Your task to perform on an android device: open app "Indeed Job Search" (install if not already installed) and enter user name: "quixotic@inbox.com" and password: "microphones" Image 0: 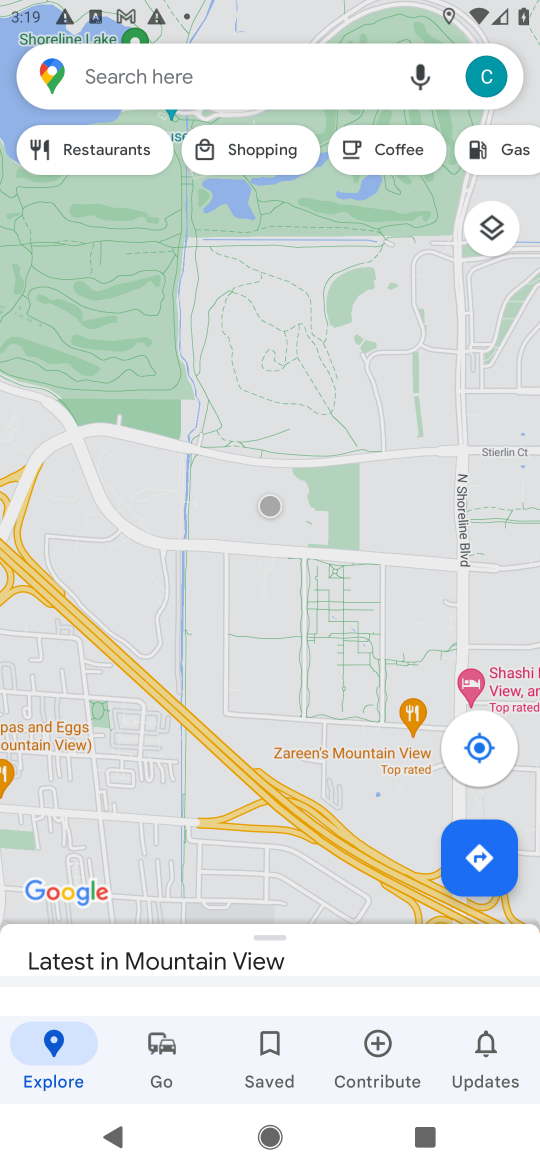
Step 0: press home button
Your task to perform on an android device: open app "Indeed Job Search" (install if not already installed) and enter user name: "quixotic@inbox.com" and password: "microphones" Image 1: 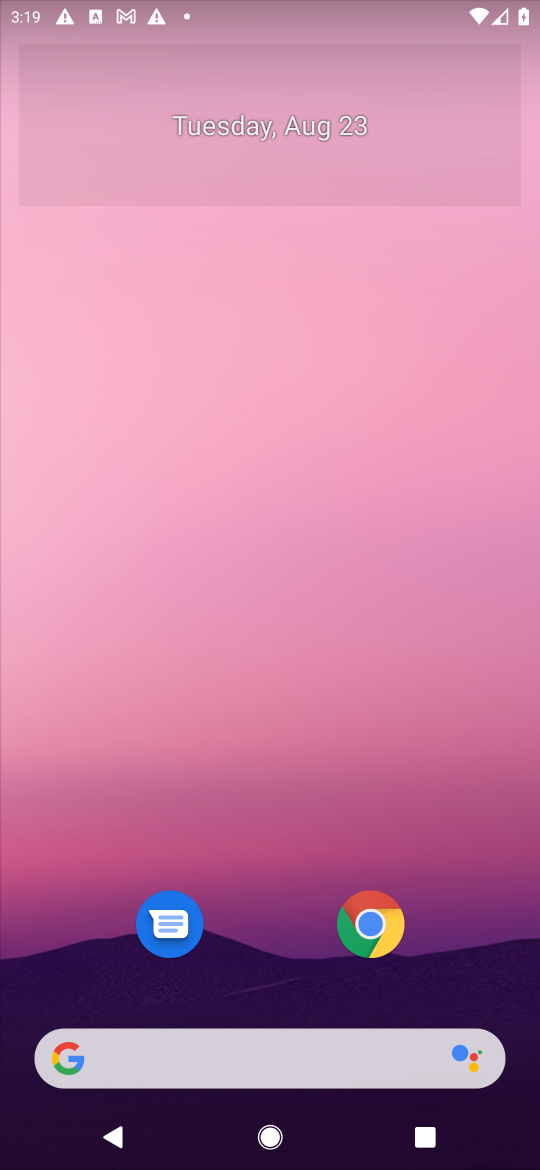
Step 1: drag from (458, 967) to (464, 58)
Your task to perform on an android device: open app "Indeed Job Search" (install if not already installed) and enter user name: "quixotic@inbox.com" and password: "microphones" Image 2: 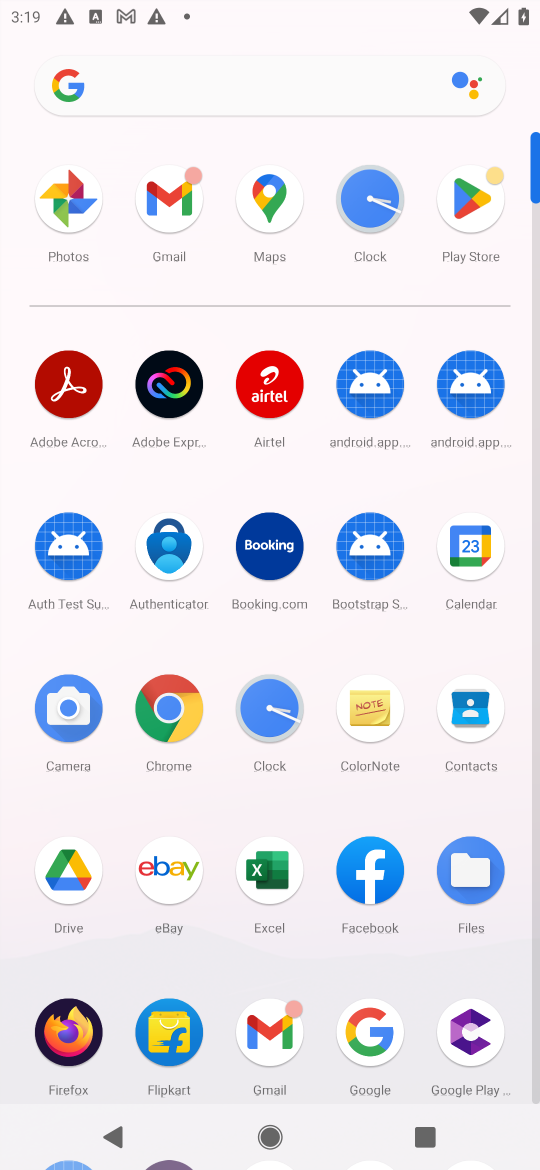
Step 2: click (475, 198)
Your task to perform on an android device: open app "Indeed Job Search" (install if not already installed) and enter user name: "quixotic@inbox.com" and password: "microphones" Image 3: 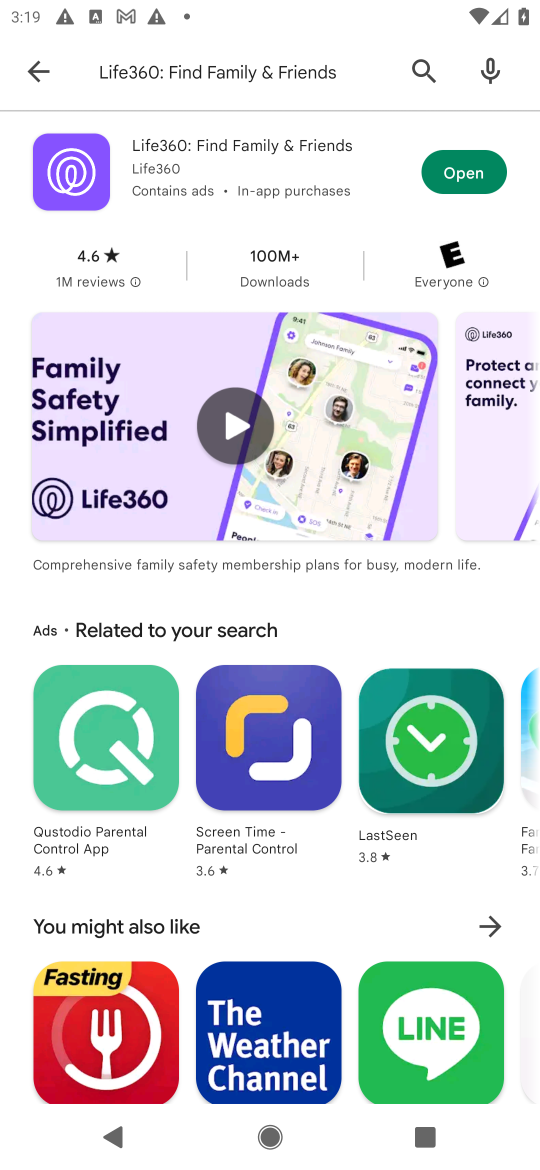
Step 3: press back button
Your task to perform on an android device: open app "Indeed Job Search" (install if not already installed) and enter user name: "quixotic@inbox.com" and password: "microphones" Image 4: 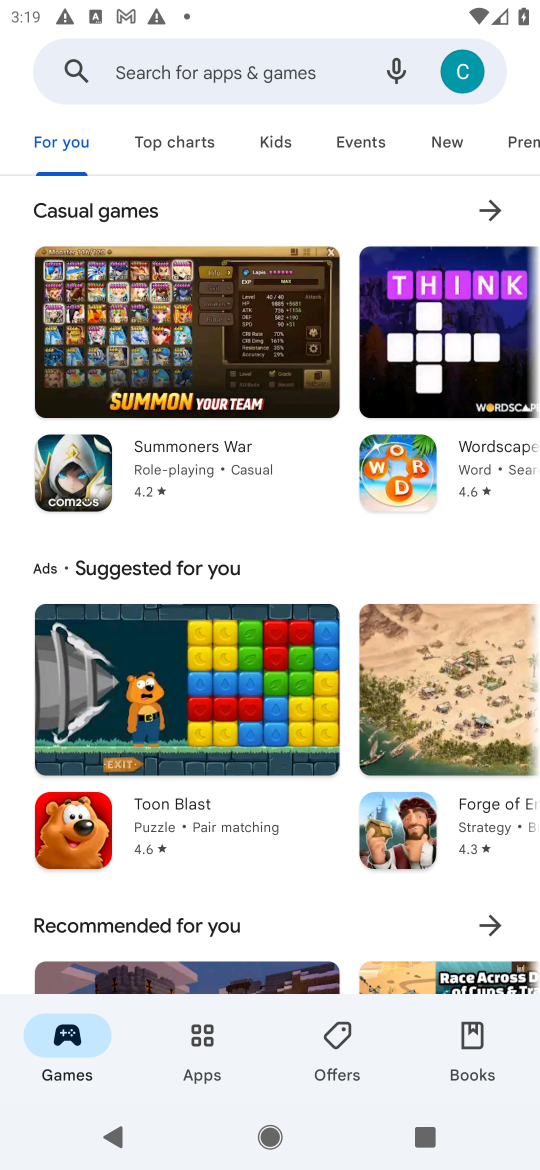
Step 4: click (242, 64)
Your task to perform on an android device: open app "Indeed Job Search" (install if not already installed) and enter user name: "quixotic@inbox.com" and password: "microphones" Image 5: 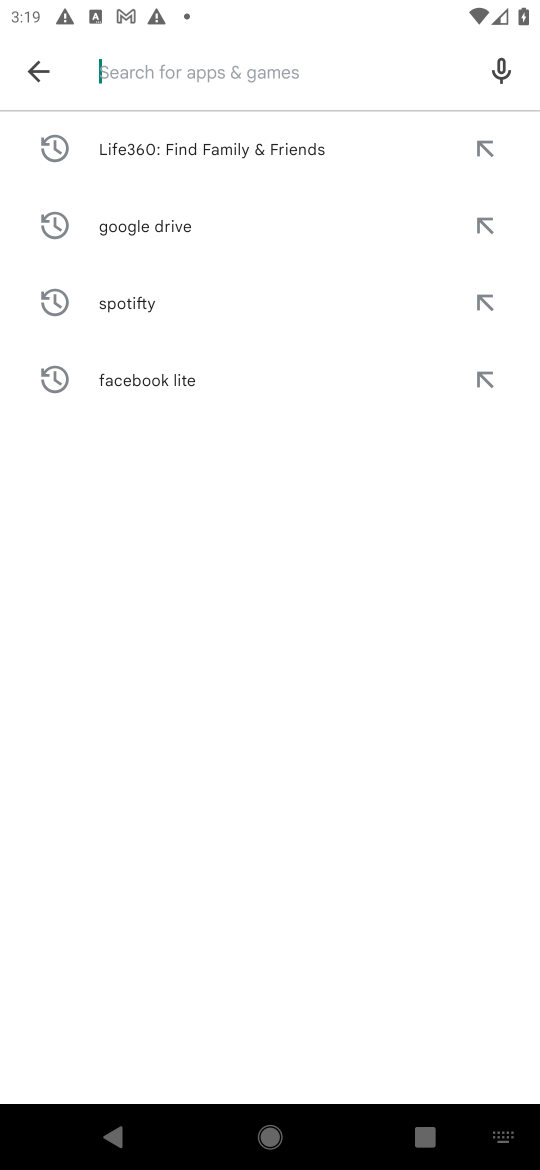
Step 5: type "Indeed Job Search"
Your task to perform on an android device: open app "Indeed Job Search" (install if not already installed) and enter user name: "quixotic@inbox.com" and password: "microphones" Image 6: 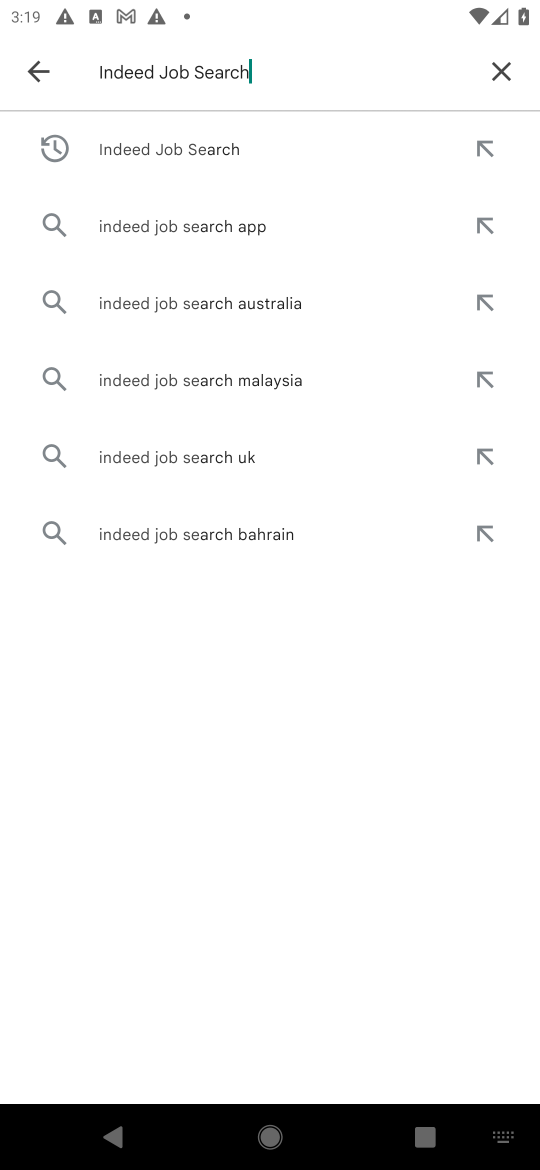
Step 6: press enter
Your task to perform on an android device: open app "Indeed Job Search" (install if not already installed) and enter user name: "quixotic@inbox.com" and password: "microphones" Image 7: 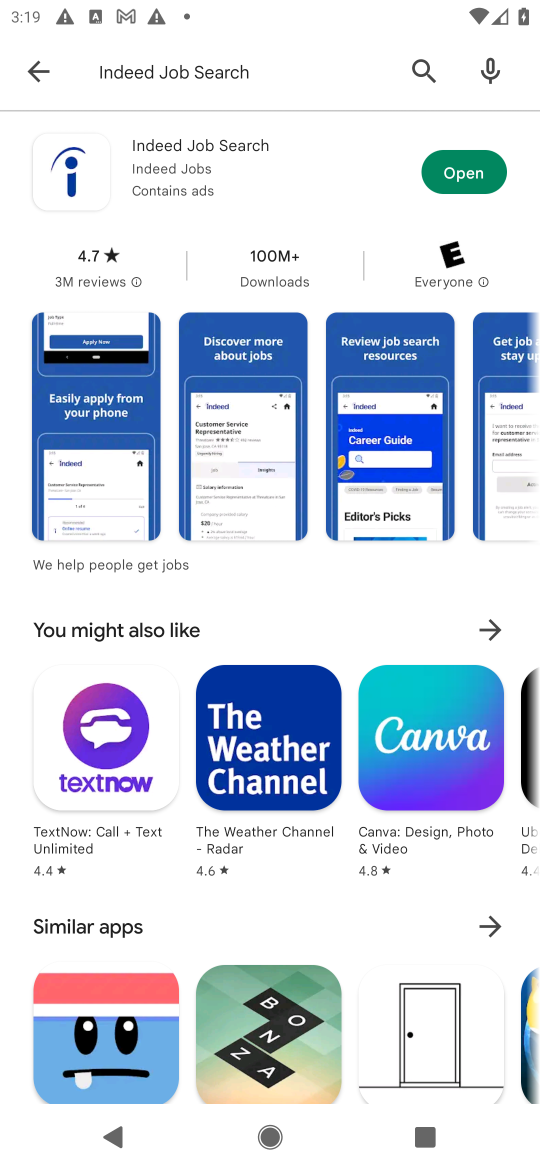
Step 7: click (468, 172)
Your task to perform on an android device: open app "Indeed Job Search" (install if not already installed) and enter user name: "quixotic@inbox.com" and password: "microphones" Image 8: 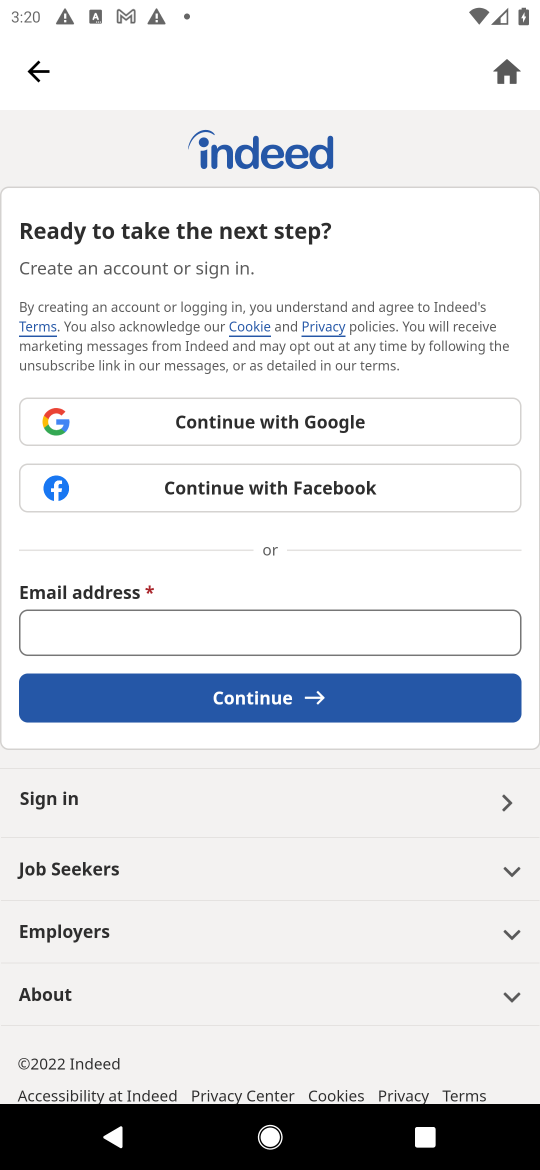
Step 8: click (147, 801)
Your task to perform on an android device: open app "Indeed Job Search" (install if not already installed) and enter user name: "quixotic@inbox.com" and password: "microphones" Image 9: 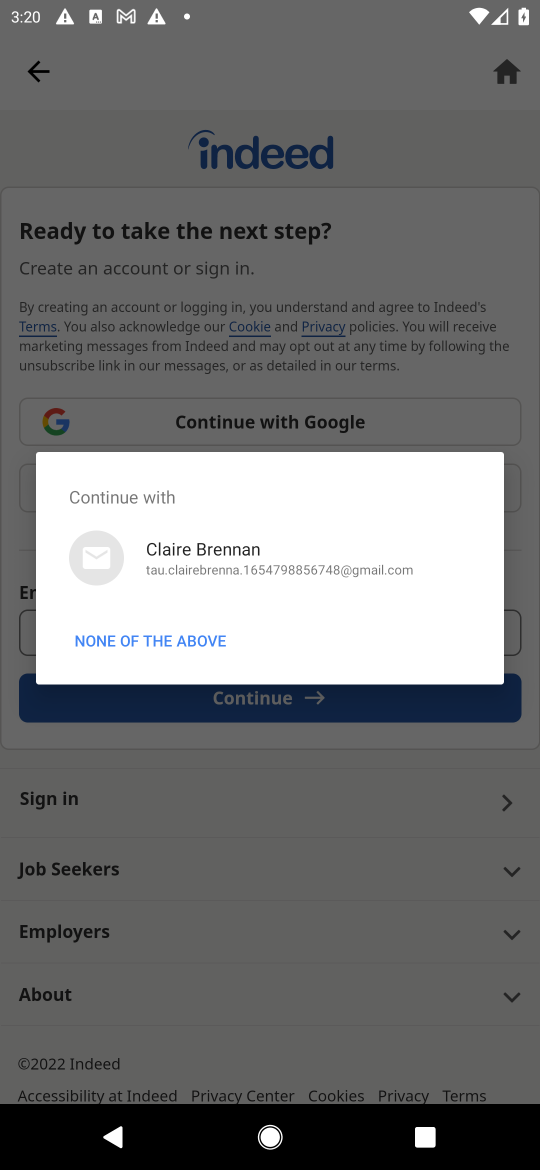
Step 9: click (157, 644)
Your task to perform on an android device: open app "Indeed Job Search" (install if not already installed) and enter user name: "quixotic@inbox.com" and password: "microphones" Image 10: 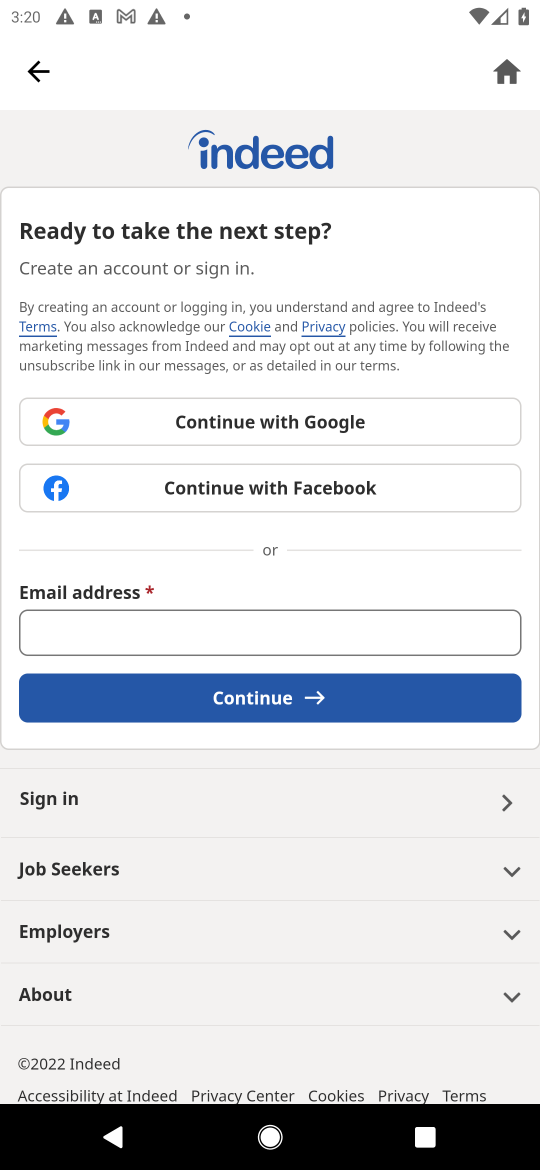
Step 10: click (219, 624)
Your task to perform on an android device: open app "Indeed Job Search" (install if not already installed) and enter user name: "quixotic@inbox.com" and password: "microphones" Image 11: 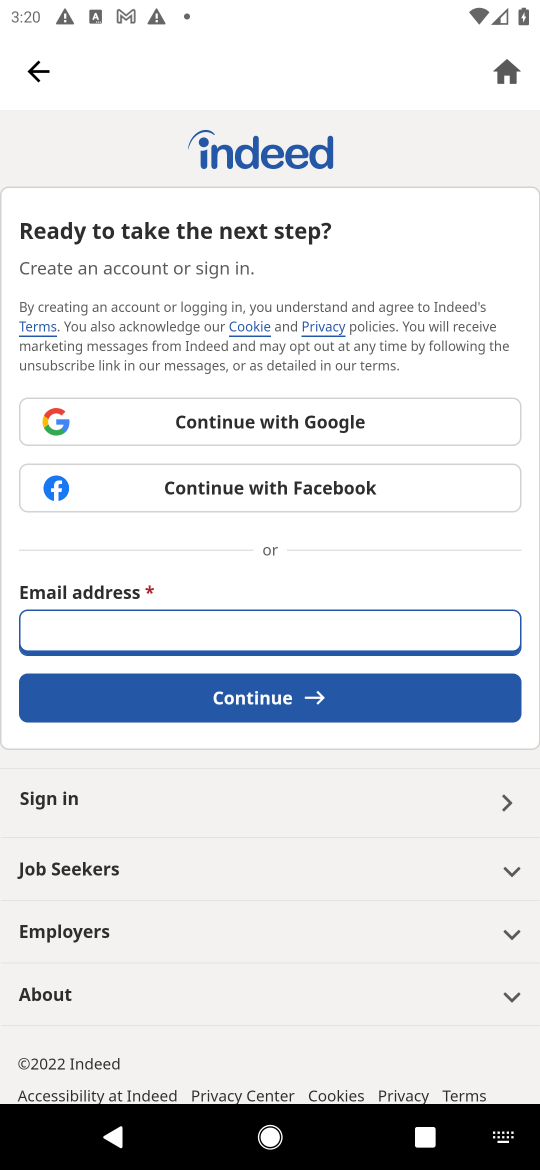
Step 11: type "quixotic@inbox.com"
Your task to perform on an android device: open app "Indeed Job Search" (install if not already installed) and enter user name: "quixotic@inbox.com" and password: "microphones" Image 12: 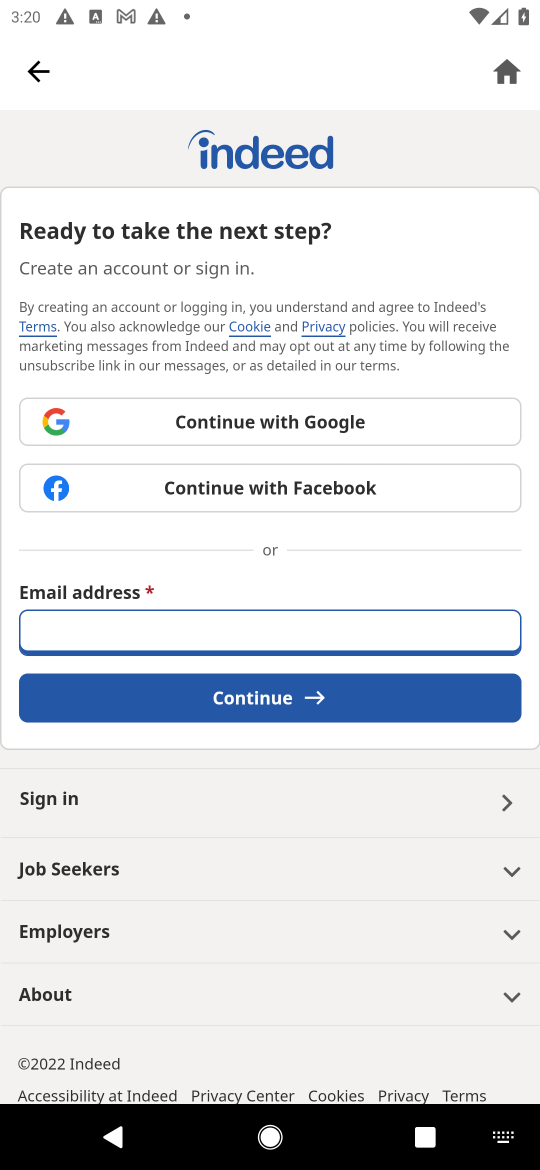
Step 12: press enter
Your task to perform on an android device: open app "Indeed Job Search" (install if not already installed) and enter user name: "quixotic@inbox.com" and password: "microphones" Image 13: 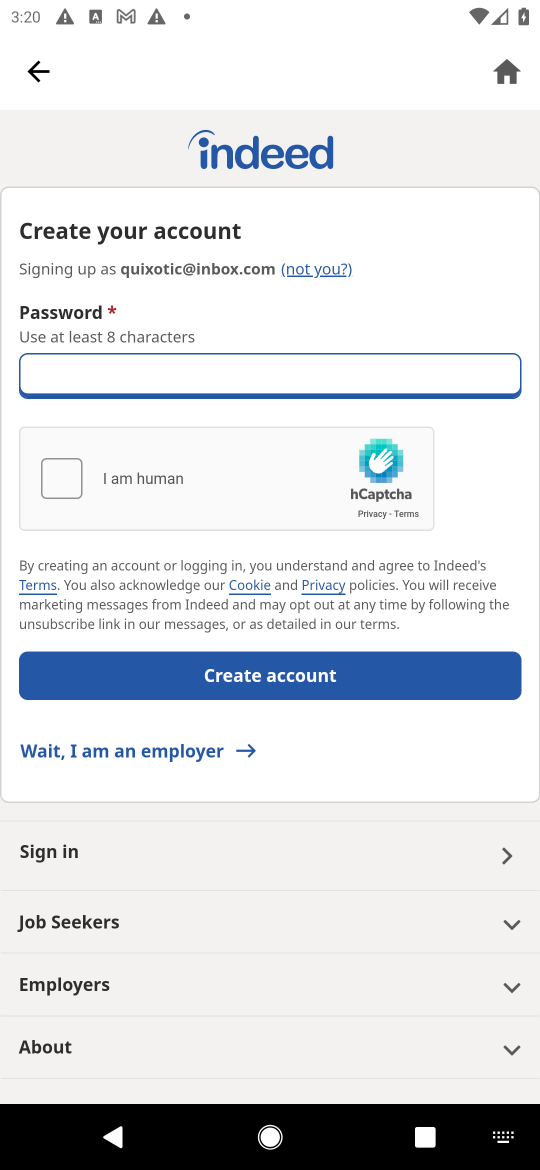
Step 13: type "microphones"
Your task to perform on an android device: open app "Indeed Job Search" (install if not already installed) and enter user name: "quixotic@inbox.com" and password: "microphones" Image 14: 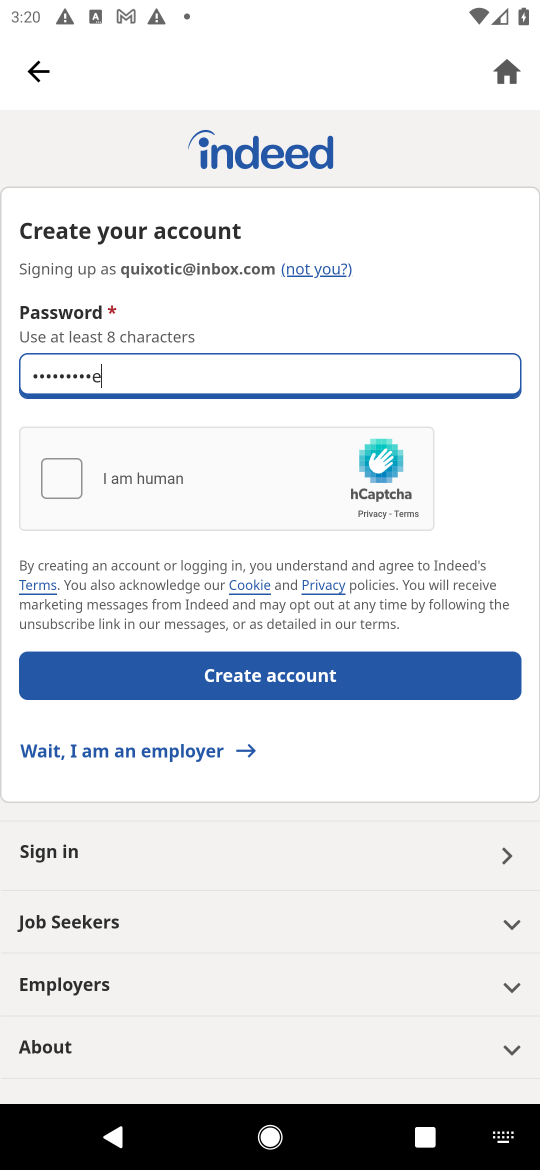
Step 14: press enter
Your task to perform on an android device: open app "Indeed Job Search" (install if not already installed) and enter user name: "quixotic@inbox.com" and password: "microphones" Image 15: 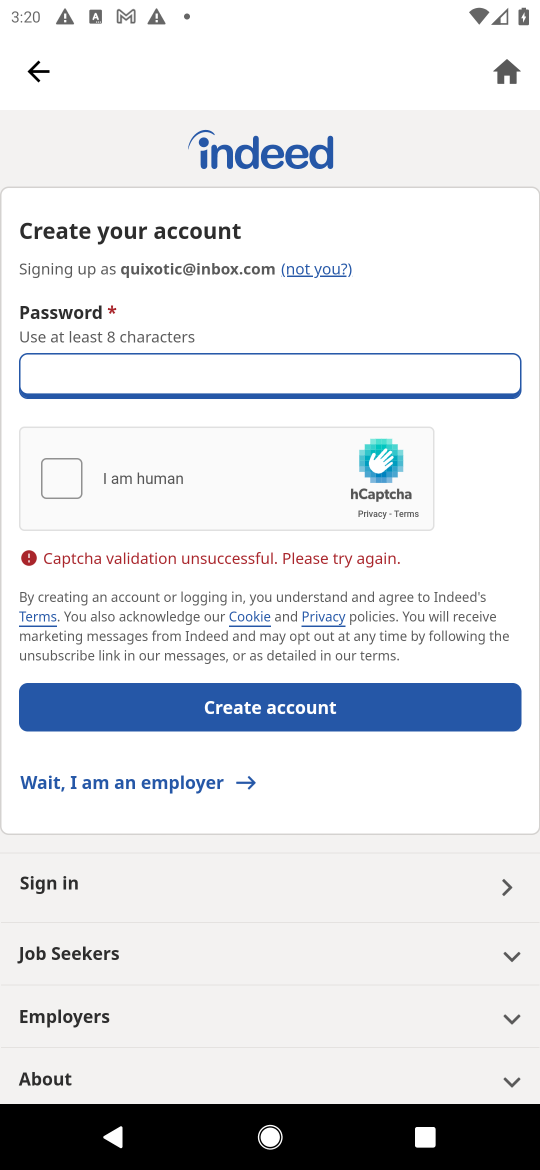
Step 15: task complete